Your task to perform on an android device: add a contact Image 0: 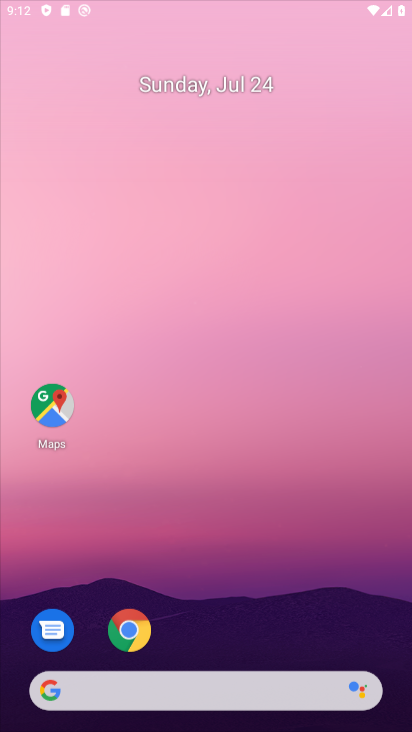
Step 0: click (208, 51)
Your task to perform on an android device: add a contact Image 1: 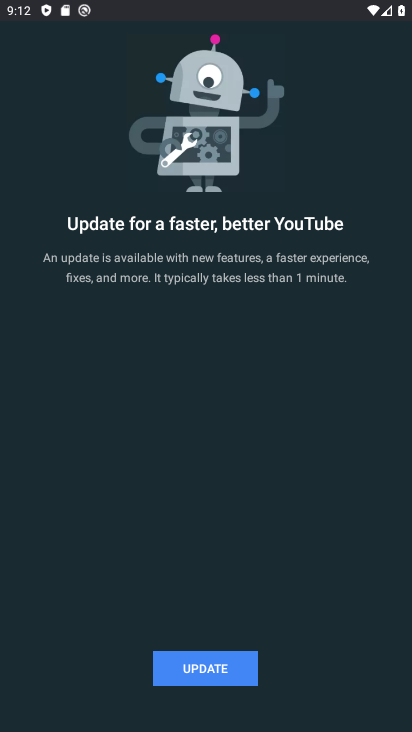
Step 1: press home button
Your task to perform on an android device: add a contact Image 2: 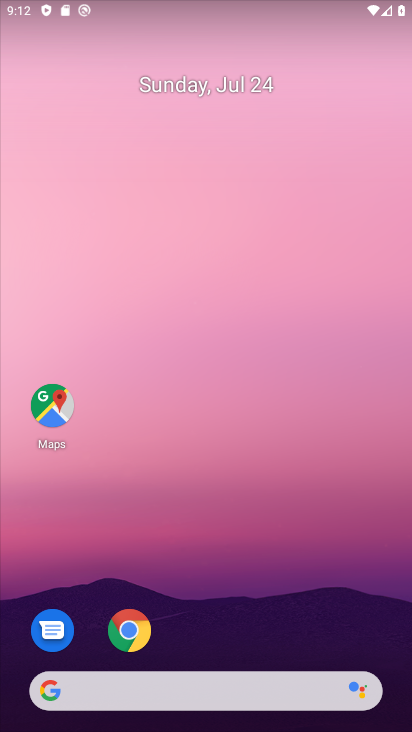
Step 2: drag from (214, 672) to (235, 172)
Your task to perform on an android device: add a contact Image 3: 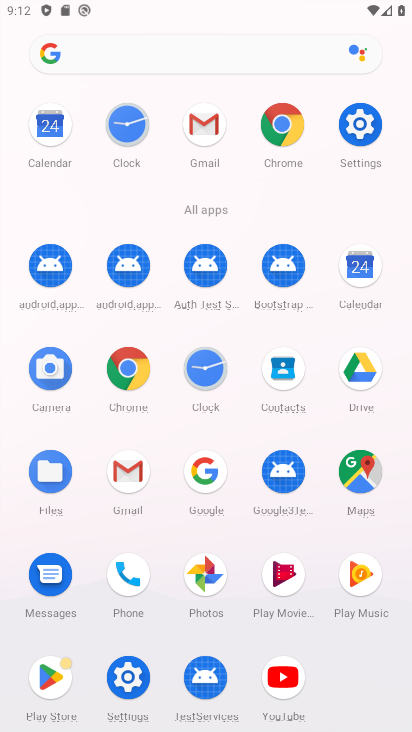
Step 3: click (122, 572)
Your task to perform on an android device: add a contact Image 4: 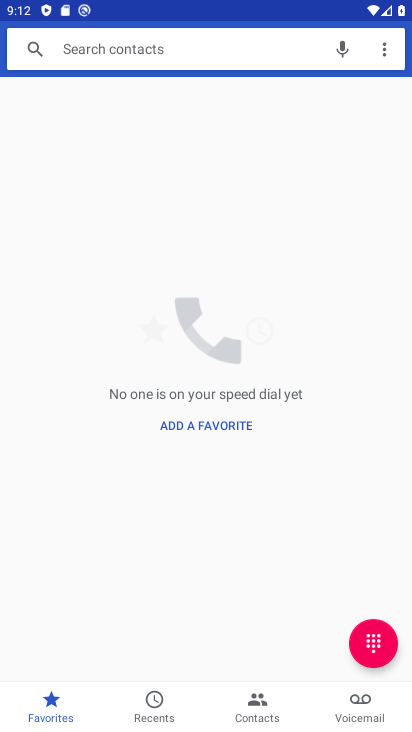
Step 4: click (188, 424)
Your task to perform on an android device: add a contact Image 5: 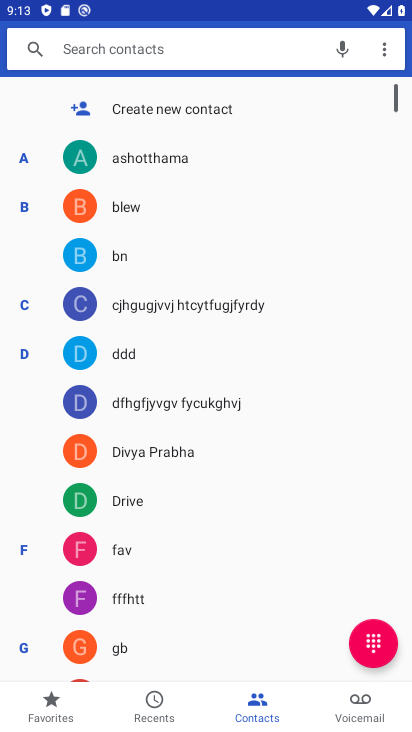
Step 5: click (133, 107)
Your task to perform on an android device: add a contact Image 6: 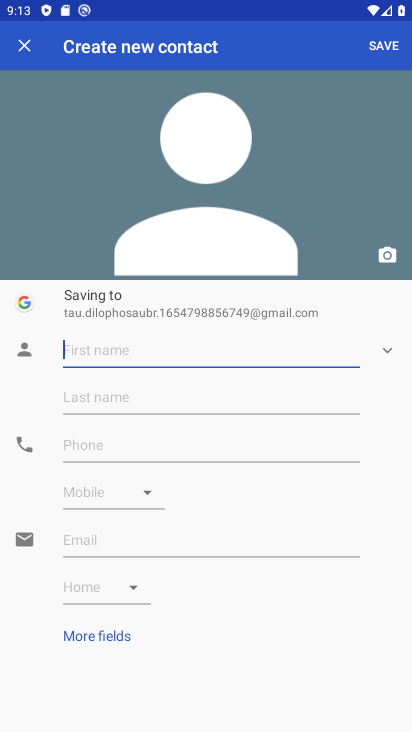
Step 6: click (143, 335)
Your task to perform on an android device: add a contact Image 7: 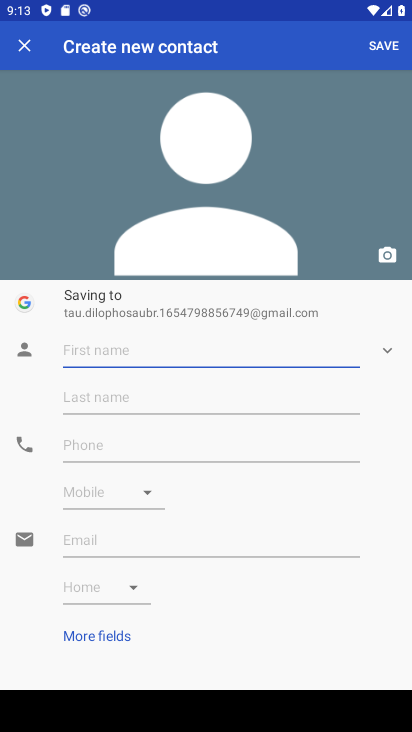
Step 7: type "ghghghghghghhghghghghhghghgh "
Your task to perform on an android device: add a contact Image 8: 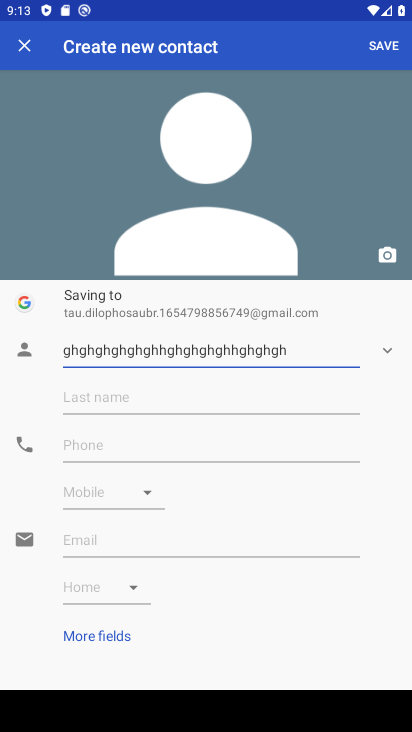
Step 8: click (111, 444)
Your task to perform on an android device: add a contact Image 9: 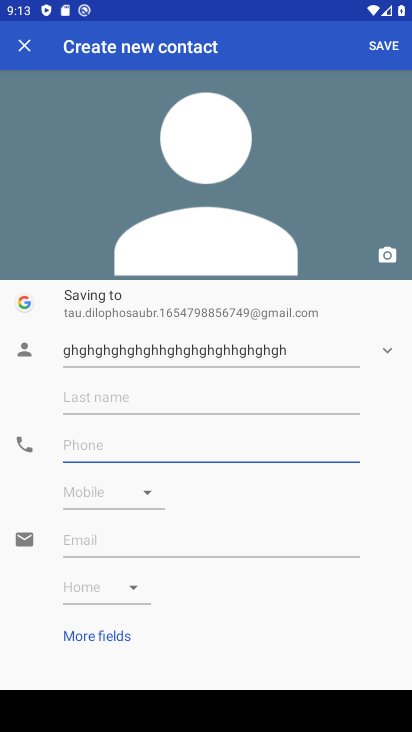
Step 9: type "878787878778787 "
Your task to perform on an android device: add a contact Image 10: 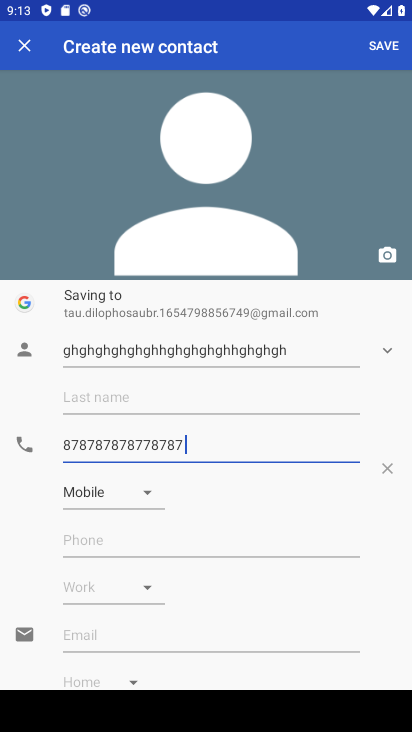
Step 10: click (401, 44)
Your task to perform on an android device: add a contact Image 11: 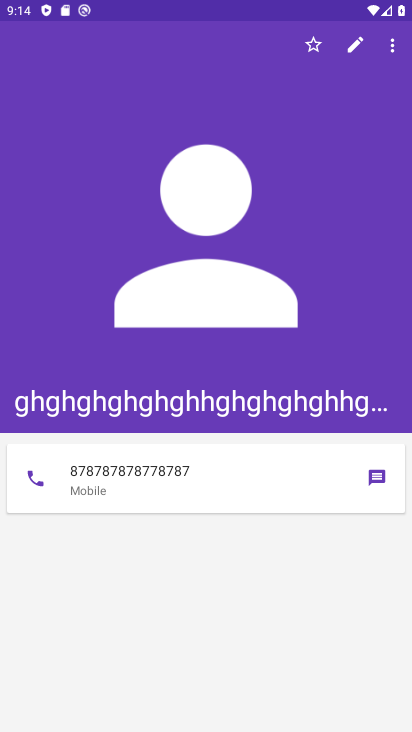
Step 11: task complete